Your task to perform on an android device: find photos in the google photos app Image 0: 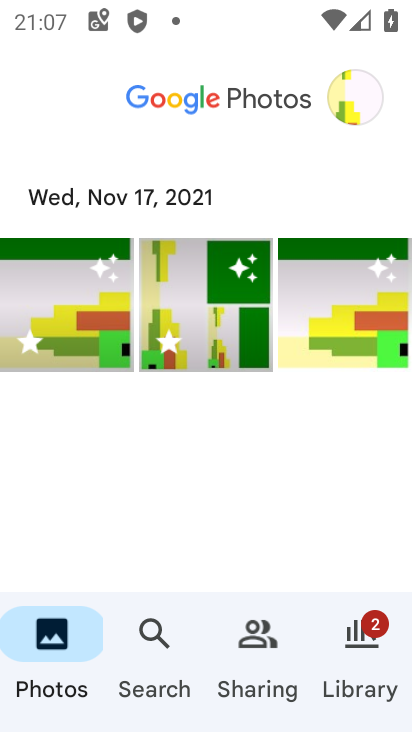
Step 0: press home button
Your task to perform on an android device: find photos in the google photos app Image 1: 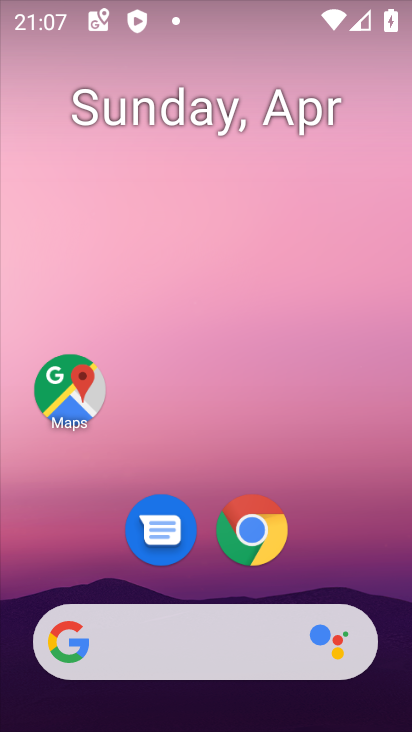
Step 1: drag from (205, 565) to (231, 101)
Your task to perform on an android device: find photos in the google photos app Image 2: 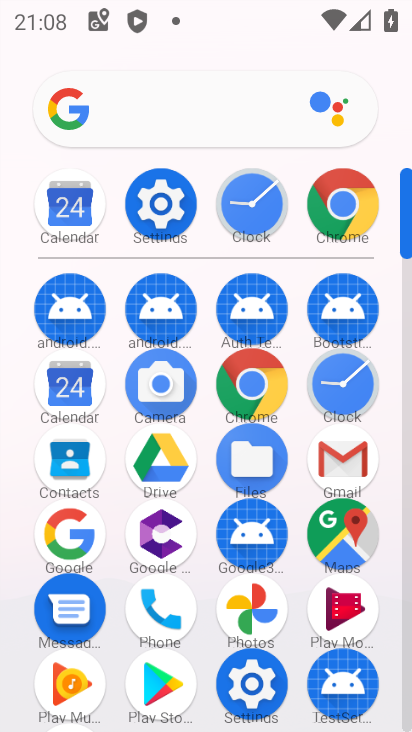
Step 2: click (245, 616)
Your task to perform on an android device: find photos in the google photos app Image 3: 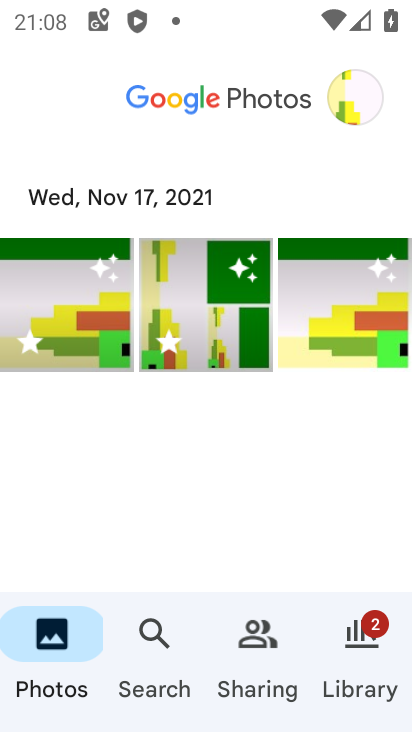
Step 3: click (227, 300)
Your task to perform on an android device: find photos in the google photos app Image 4: 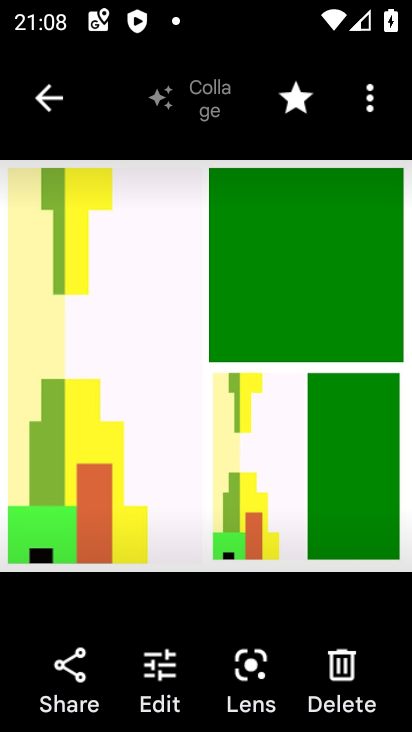
Step 4: task complete